Your task to perform on an android device: Add dell xps to the cart on bestbuy Image 0: 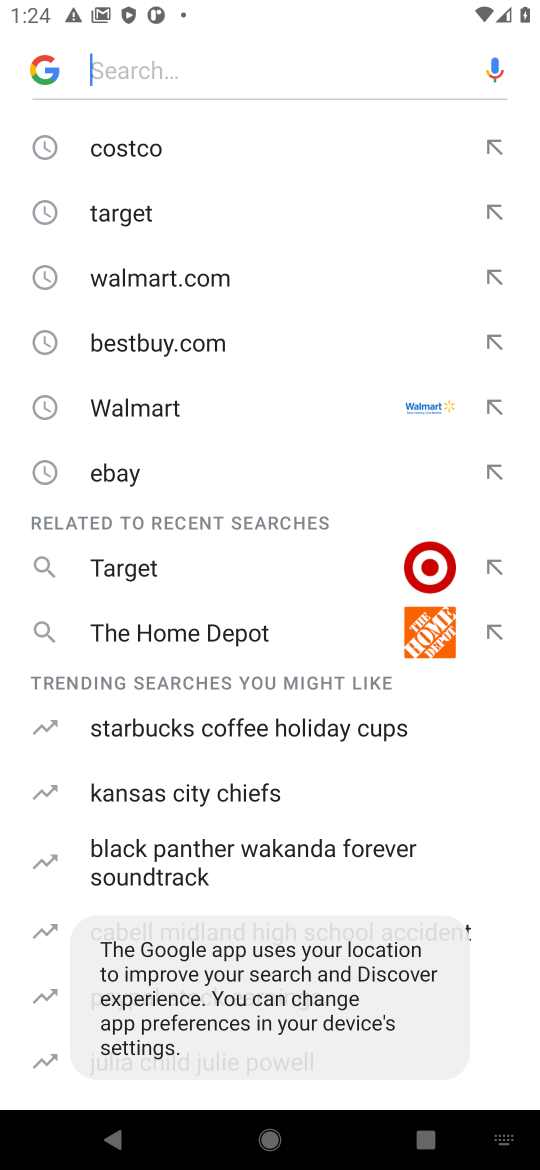
Step 0: press home button
Your task to perform on an android device: Add dell xps to the cart on bestbuy Image 1: 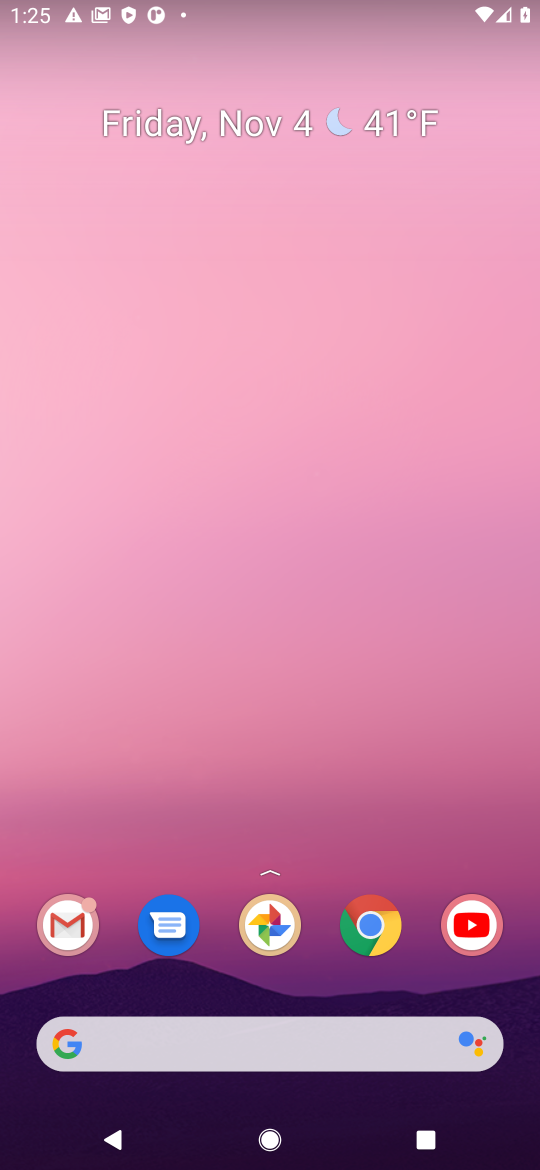
Step 1: click (358, 916)
Your task to perform on an android device: Add dell xps to the cart on bestbuy Image 2: 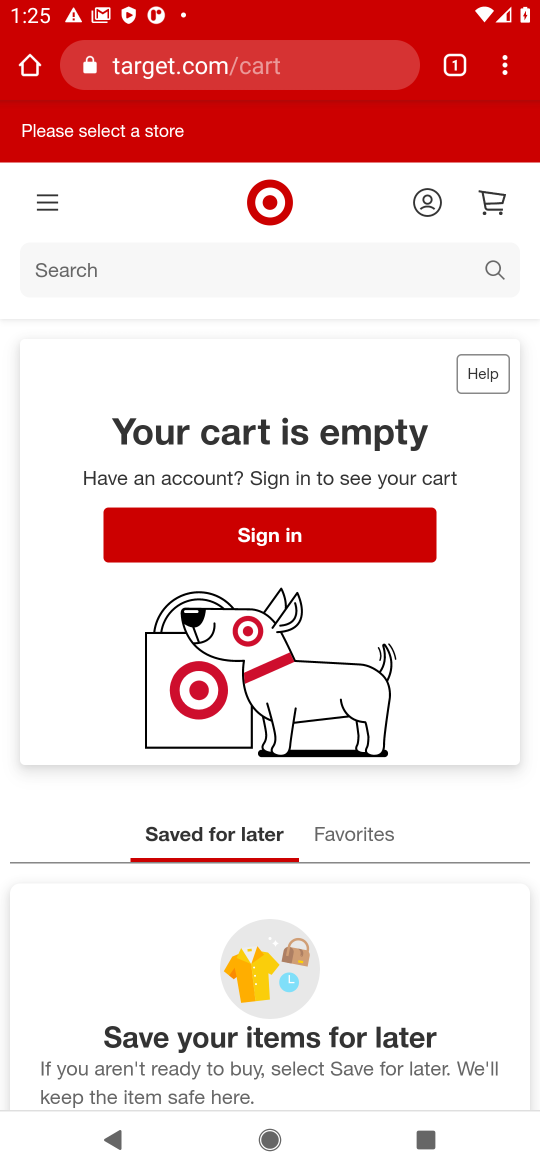
Step 2: click (322, 62)
Your task to perform on an android device: Add dell xps to the cart on bestbuy Image 3: 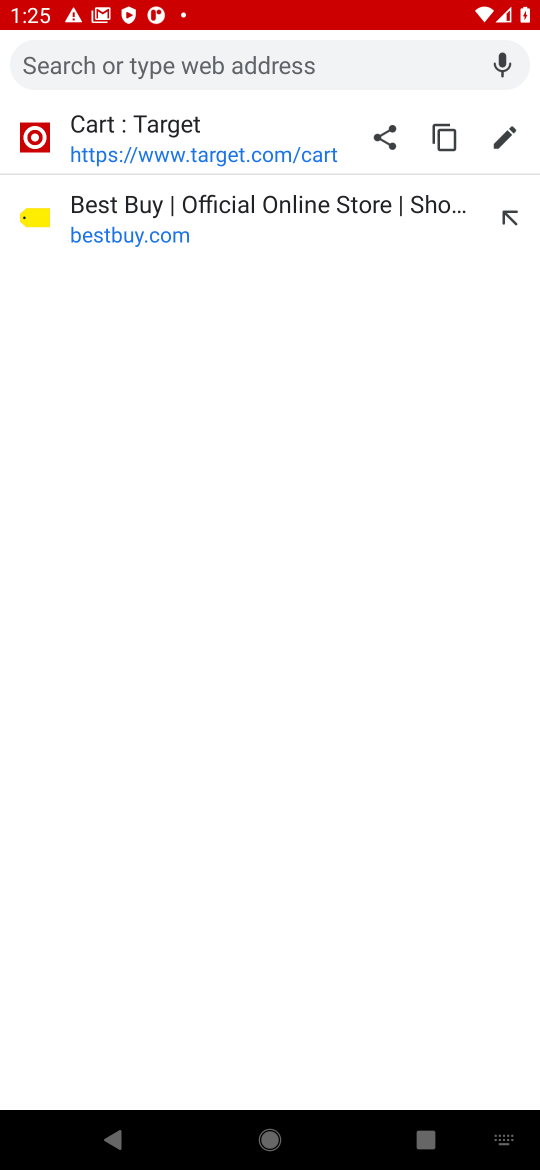
Step 3: type "bestbuy"
Your task to perform on an android device: Add dell xps to the cart on bestbuy Image 4: 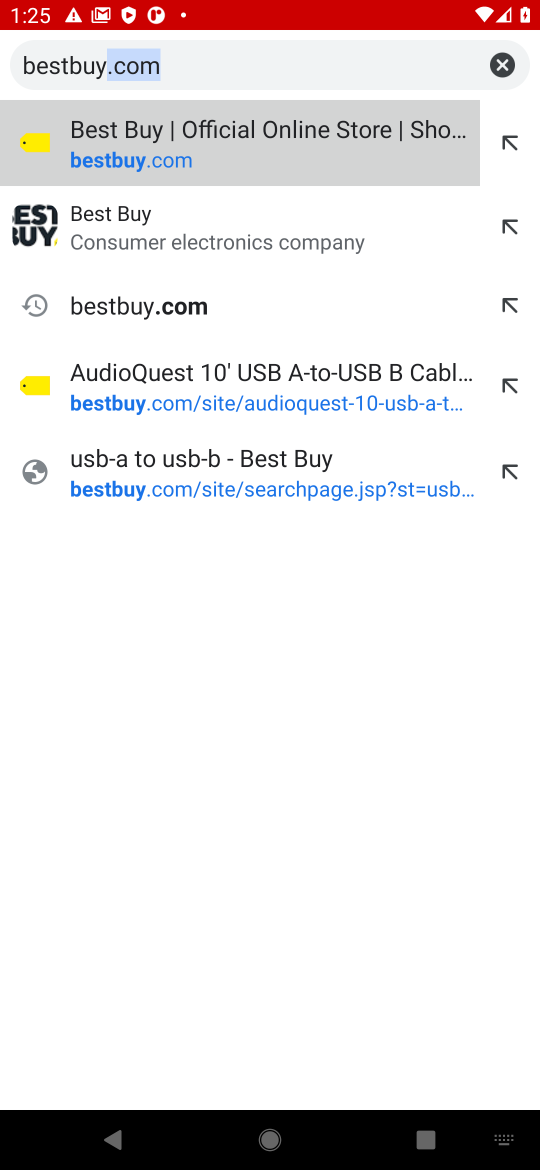
Step 4: press enter
Your task to perform on an android device: Add dell xps to the cart on bestbuy Image 5: 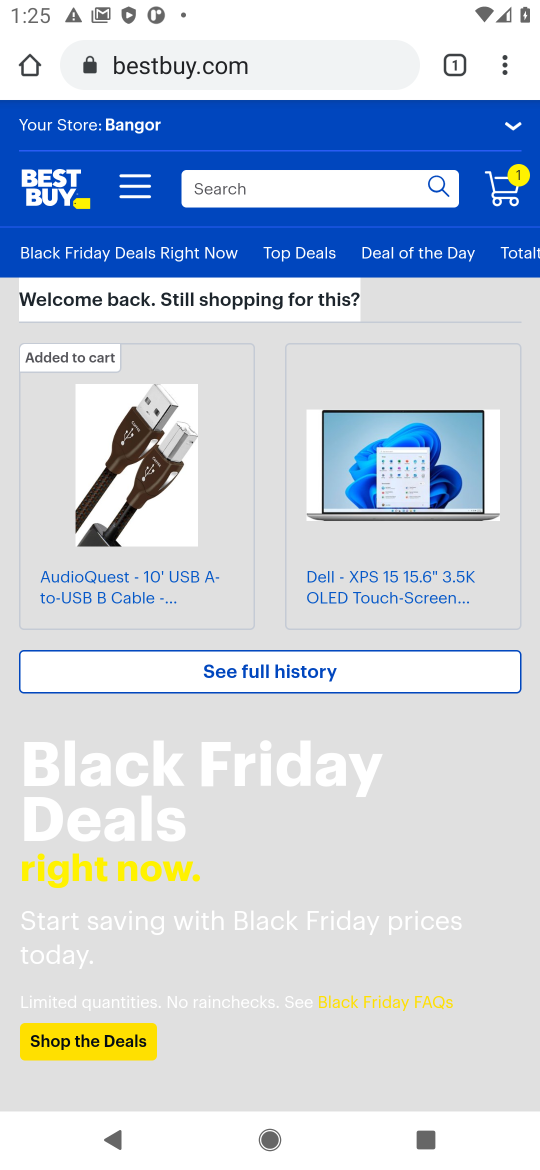
Step 5: click (267, 191)
Your task to perform on an android device: Add dell xps to the cart on bestbuy Image 6: 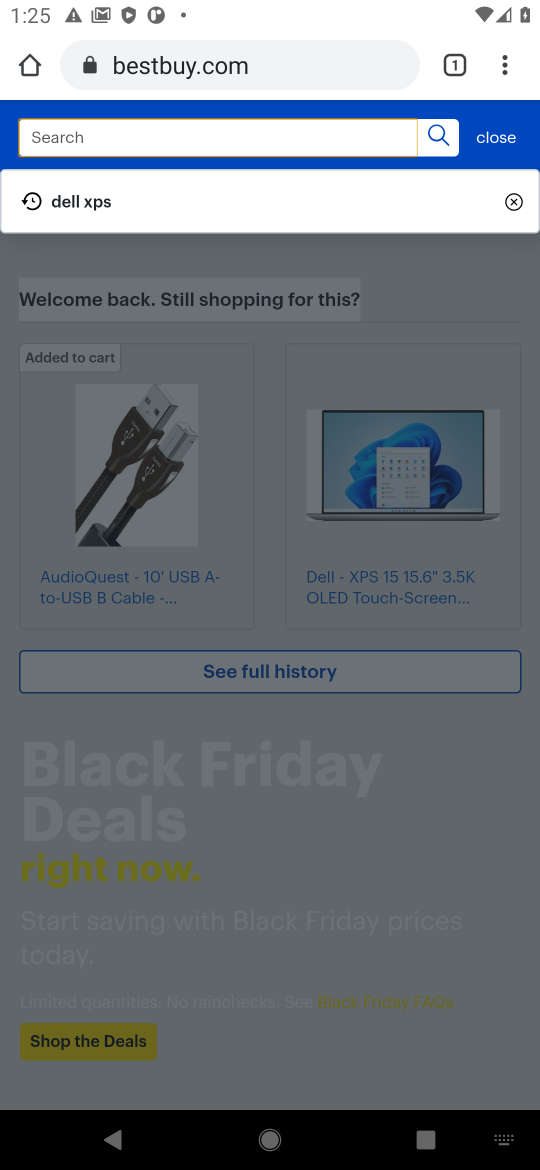
Step 6: type "dell xps"
Your task to perform on an android device: Add dell xps to the cart on bestbuy Image 7: 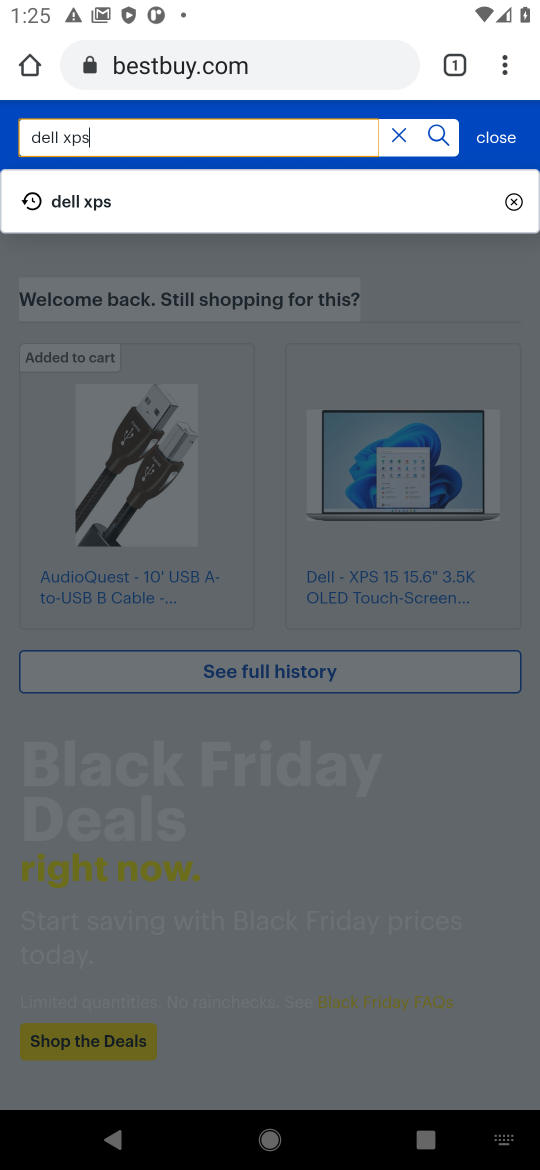
Step 7: press enter
Your task to perform on an android device: Add dell xps to the cart on bestbuy Image 8: 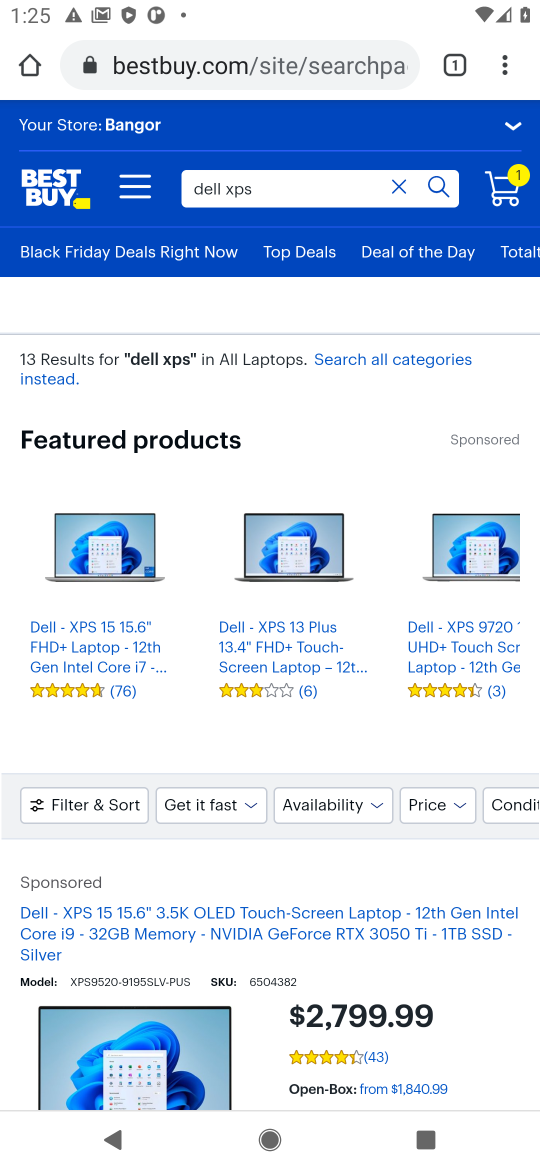
Step 8: click (146, 914)
Your task to perform on an android device: Add dell xps to the cart on bestbuy Image 9: 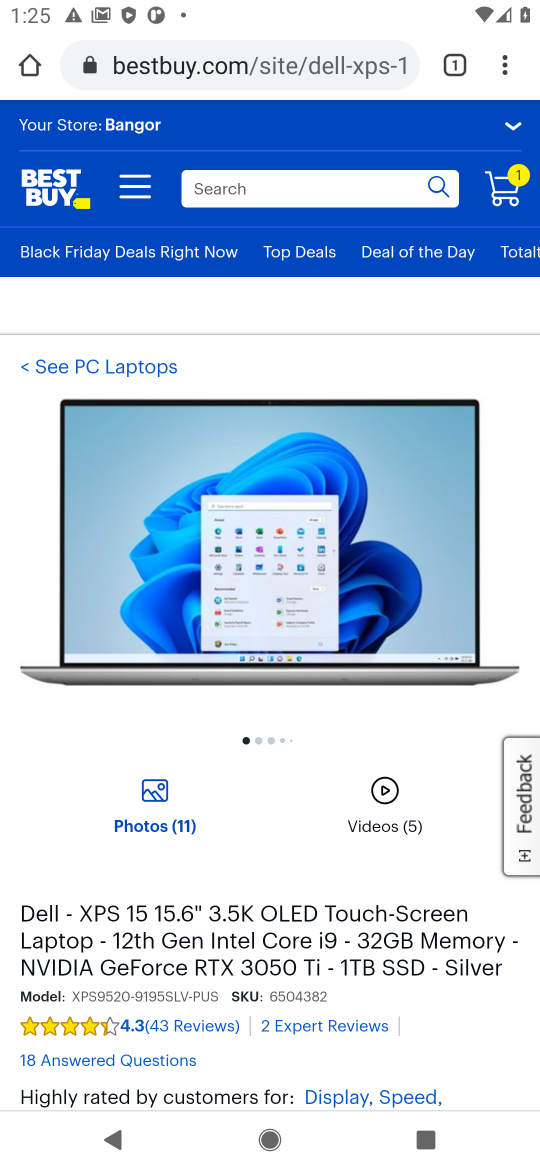
Step 9: drag from (301, 980) to (292, 384)
Your task to perform on an android device: Add dell xps to the cart on bestbuy Image 10: 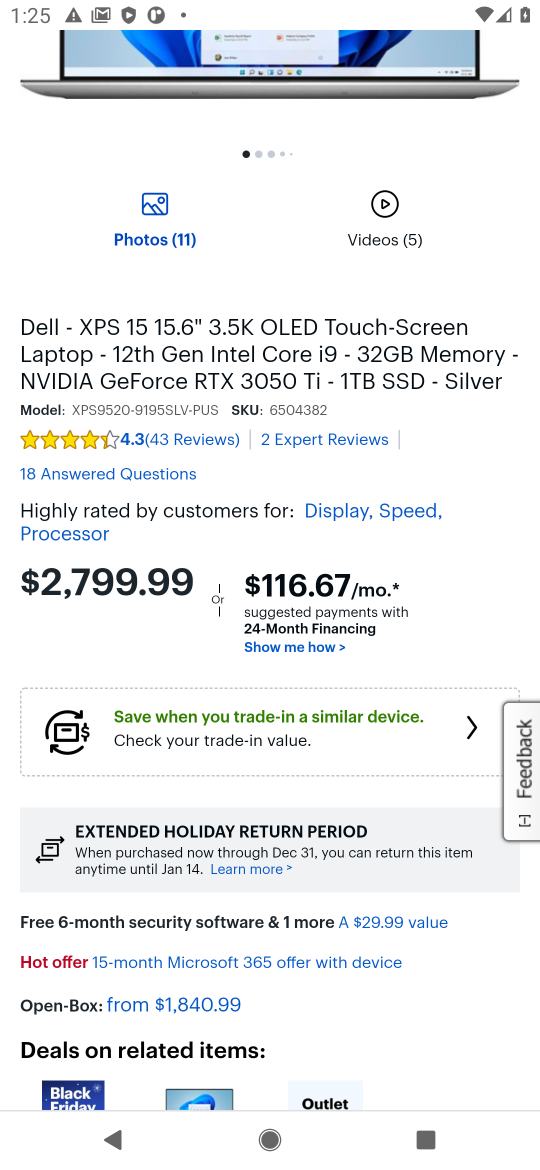
Step 10: drag from (379, 914) to (359, 532)
Your task to perform on an android device: Add dell xps to the cart on bestbuy Image 11: 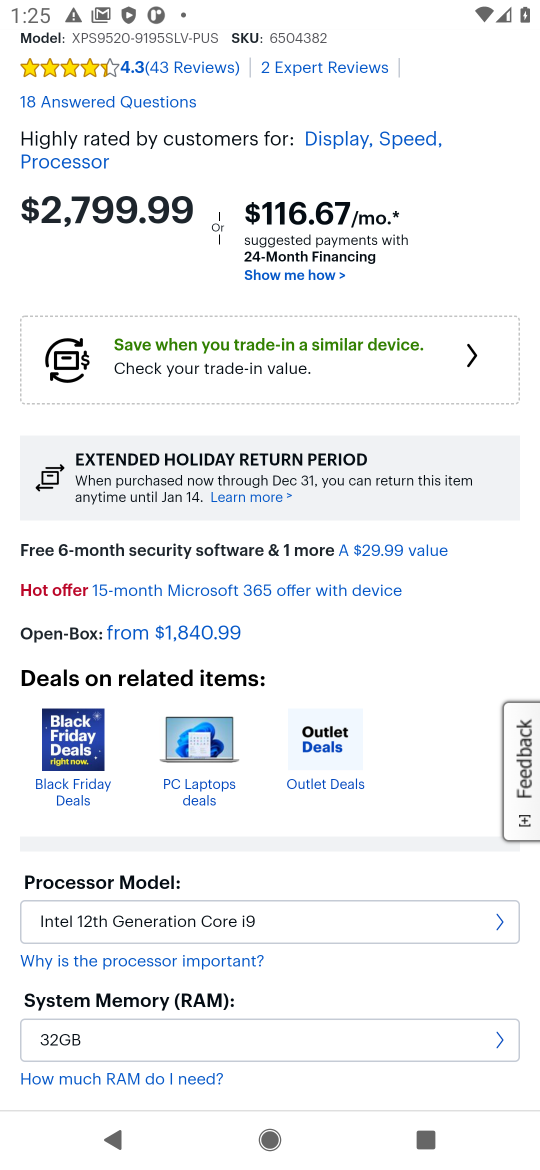
Step 11: drag from (432, 1060) to (404, 584)
Your task to perform on an android device: Add dell xps to the cart on bestbuy Image 12: 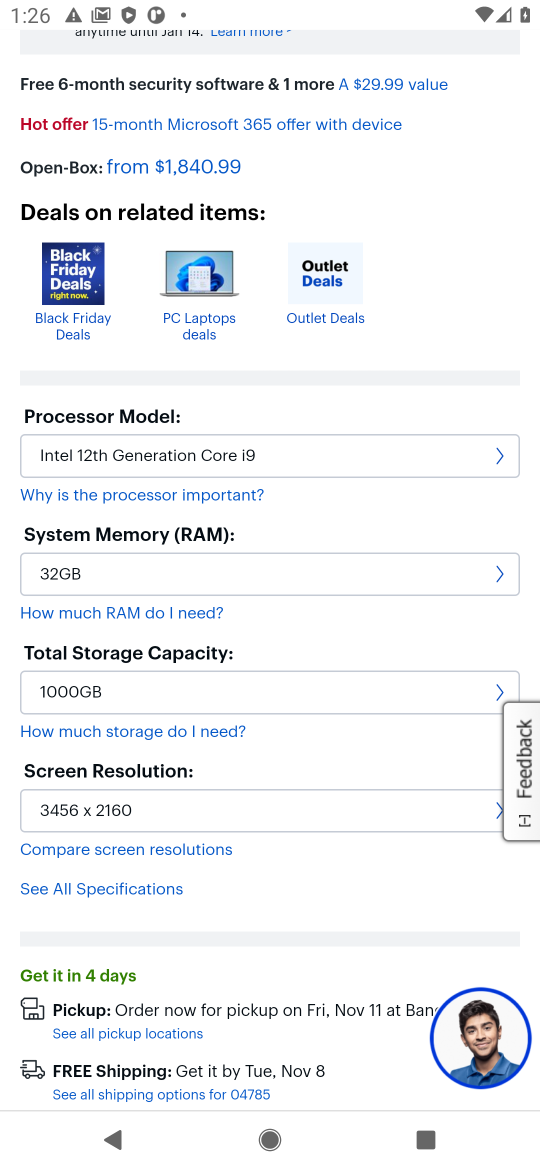
Step 12: drag from (410, 925) to (286, 397)
Your task to perform on an android device: Add dell xps to the cart on bestbuy Image 13: 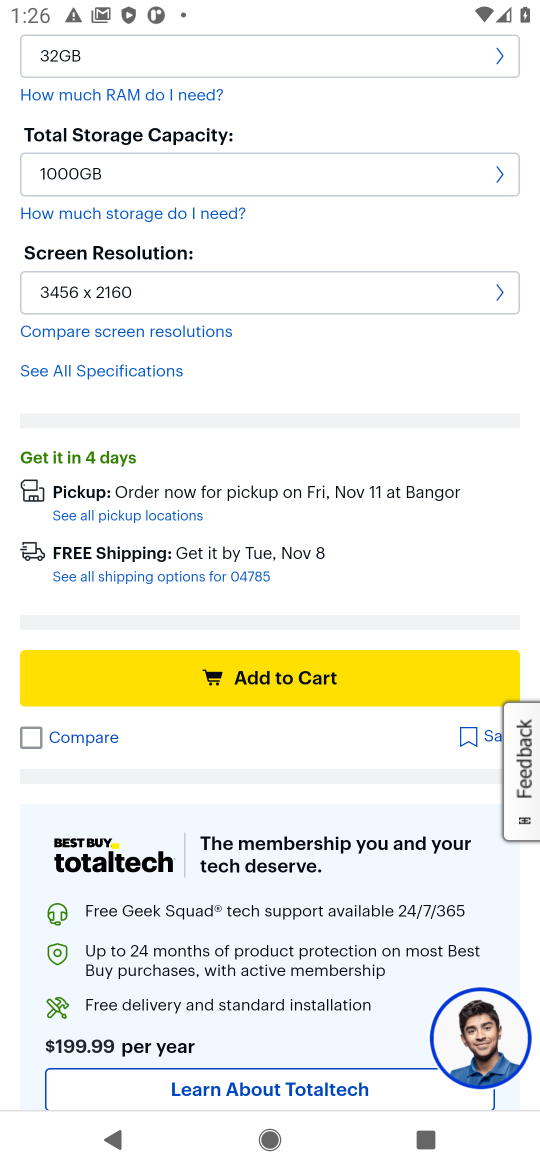
Step 13: click (307, 675)
Your task to perform on an android device: Add dell xps to the cart on bestbuy Image 14: 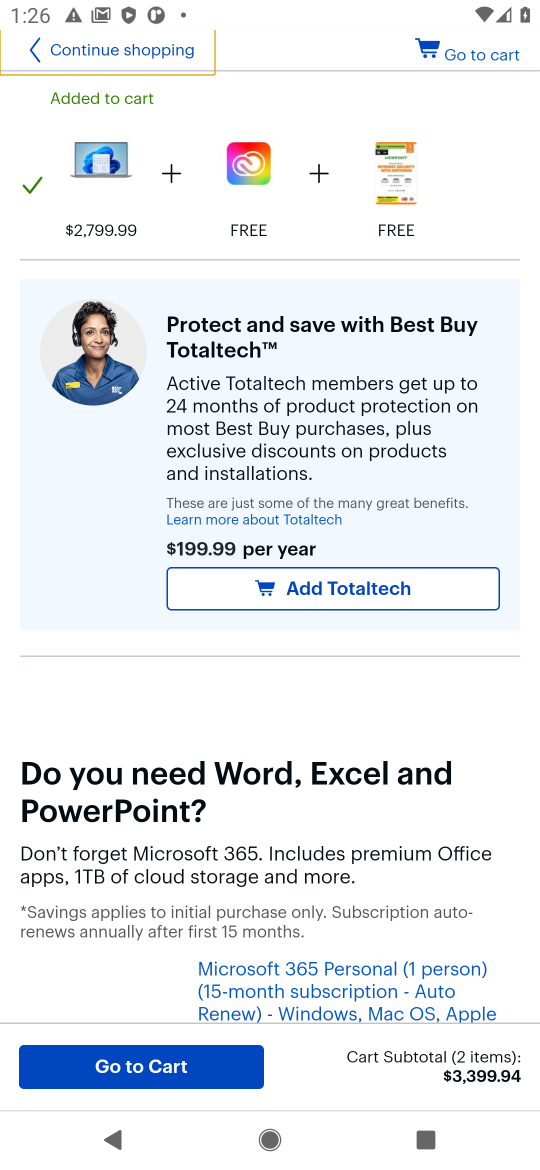
Step 14: task complete